Your task to perform on an android device: When is my next meeting? Image 0: 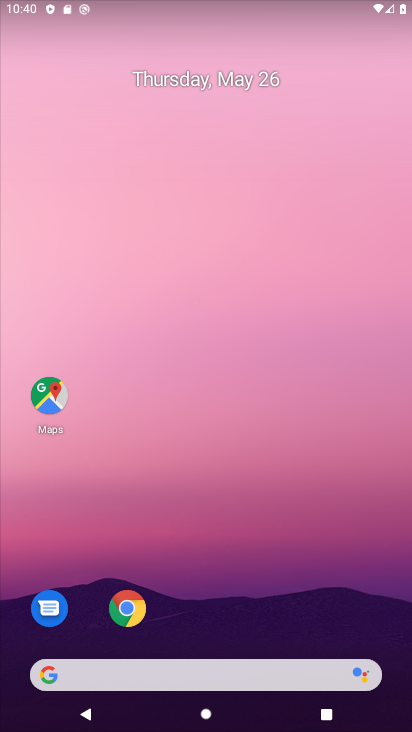
Step 0: drag from (282, 590) to (285, 62)
Your task to perform on an android device: When is my next meeting? Image 1: 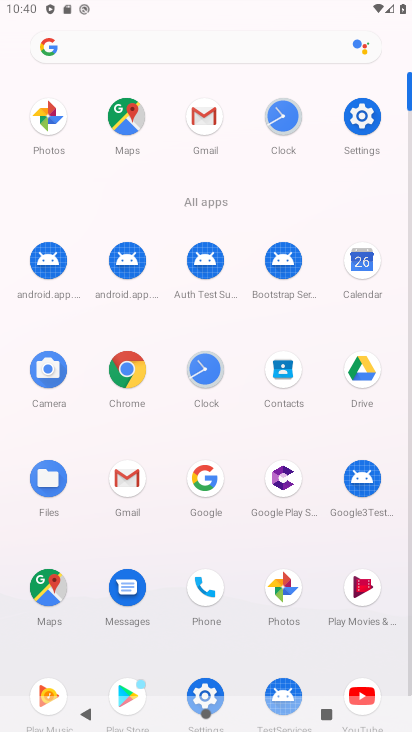
Step 1: click (356, 263)
Your task to perform on an android device: When is my next meeting? Image 2: 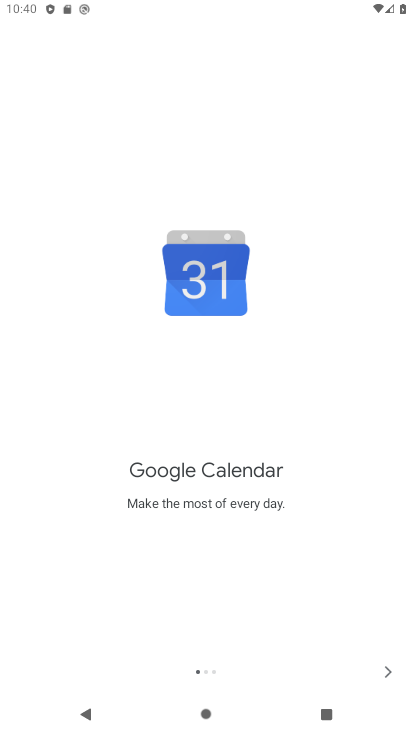
Step 2: click (391, 665)
Your task to perform on an android device: When is my next meeting? Image 3: 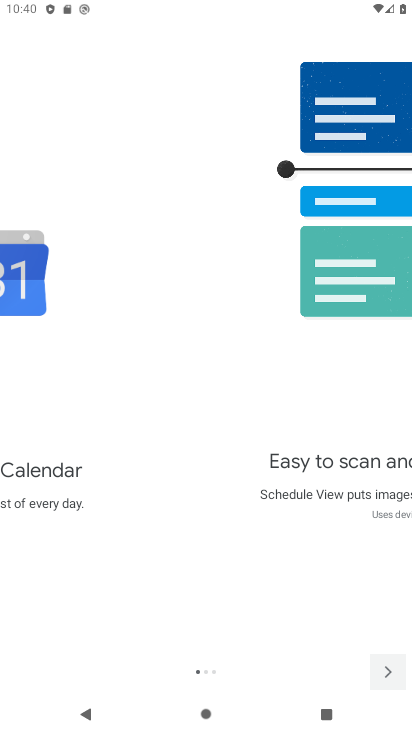
Step 3: click (389, 666)
Your task to perform on an android device: When is my next meeting? Image 4: 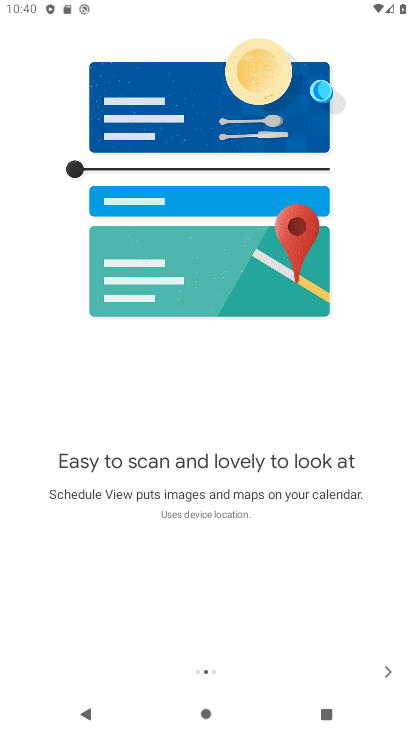
Step 4: click (389, 666)
Your task to perform on an android device: When is my next meeting? Image 5: 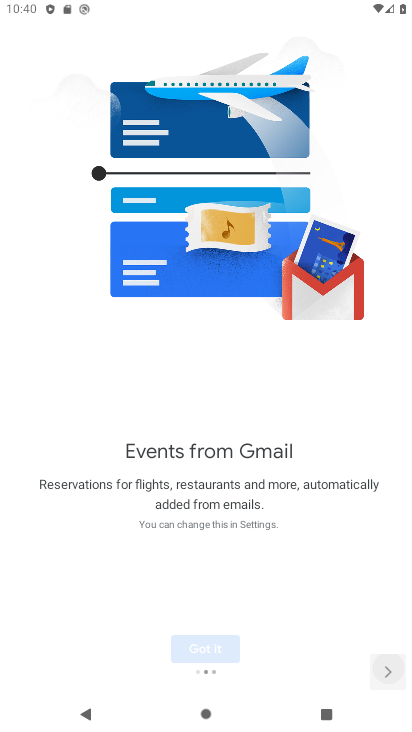
Step 5: click (389, 666)
Your task to perform on an android device: When is my next meeting? Image 6: 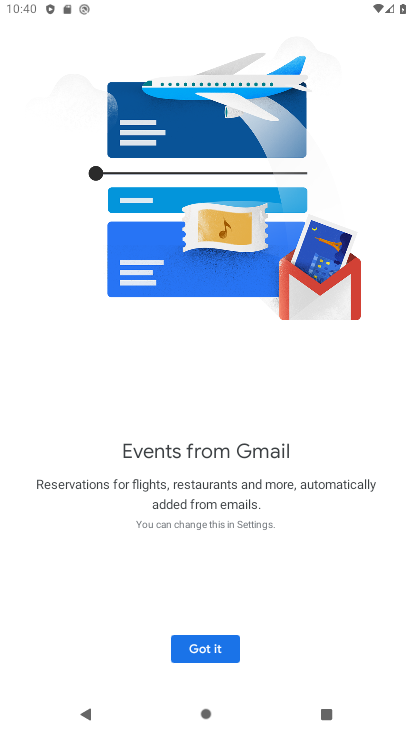
Step 6: click (389, 666)
Your task to perform on an android device: When is my next meeting? Image 7: 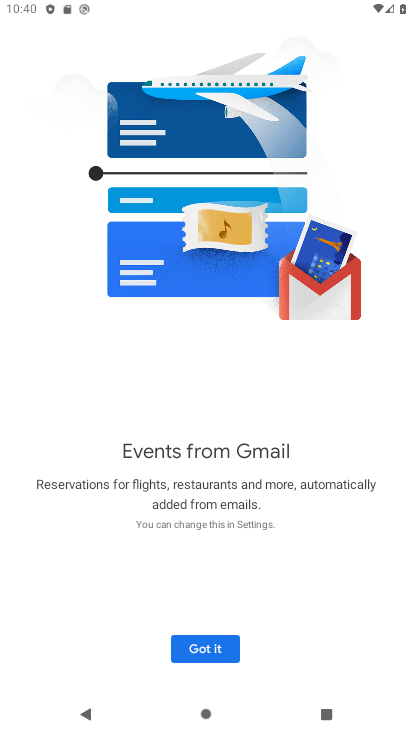
Step 7: click (236, 643)
Your task to perform on an android device: When is my next meeting? Image 8: 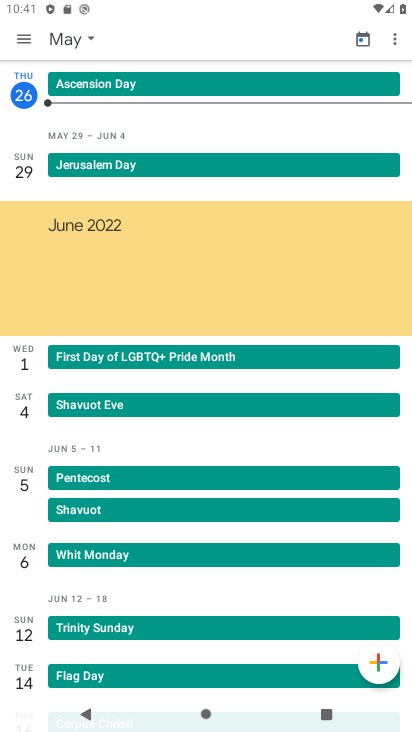
Step 8: click (71, 45)
Your task to perform on an android device: When is my next meeting? Image 9: 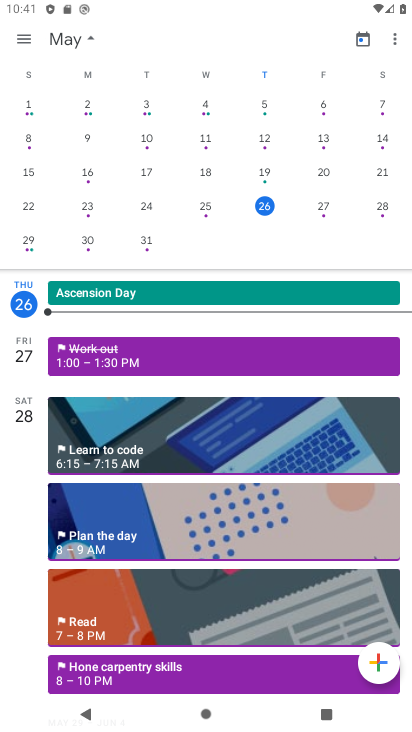
Step 9: task complete